Your task to perform on an android device: What is the recent news? Image 0: 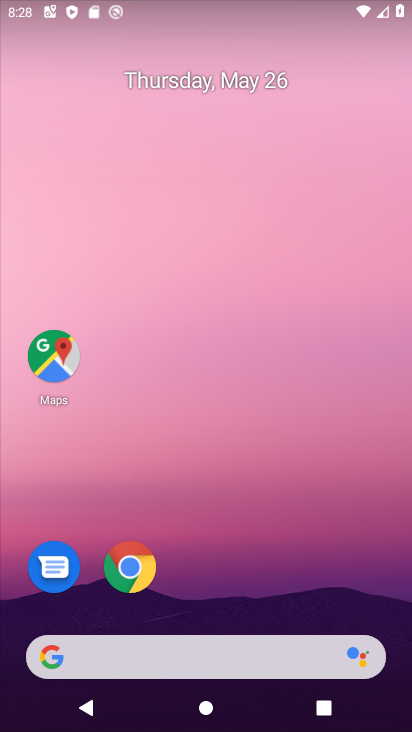
Step 0: press home button
Your task to perform on an android device: What is the recent news? Image 1: 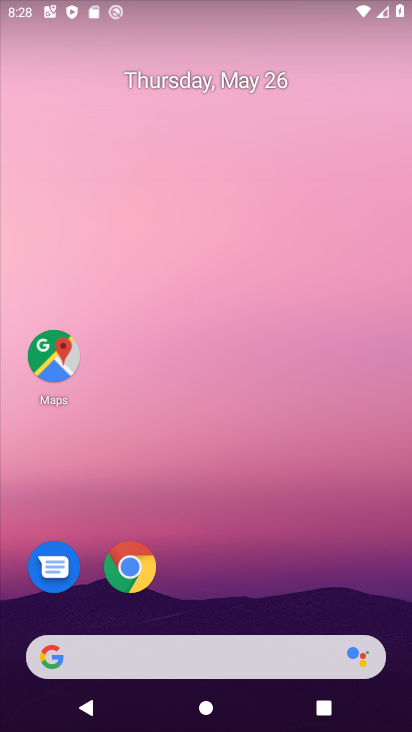
Step 1: click (54, 664)
Your task to perform on an android device: What is the recent news? Image 2: 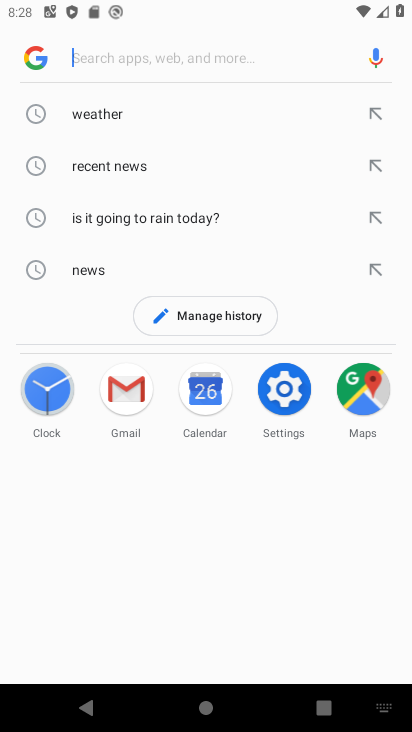
Step 2: click (130, 167)
Your task to perform on an android device: What is the recent news? Image 3: 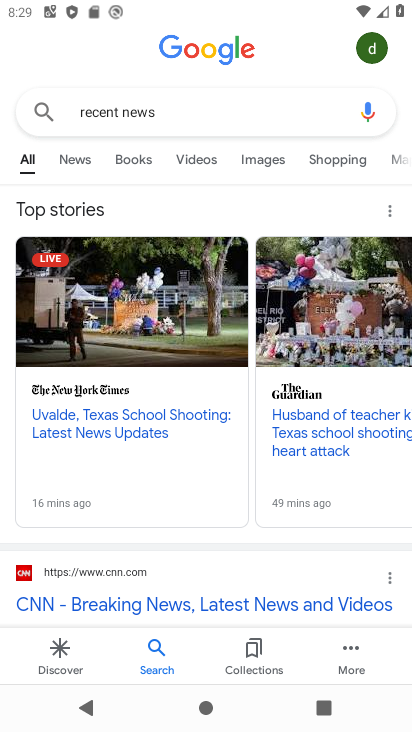
Step 3: click (83, 162)
Your task to perform on an android device: What is the recent news? Image 4: 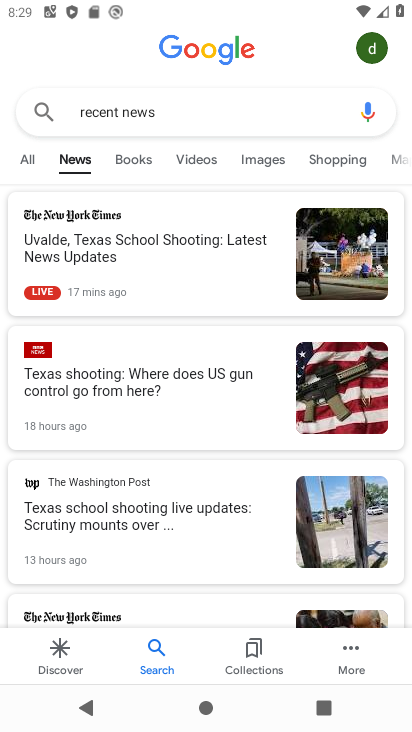
Step 4: task complete